Your task to perform on an android device: When is my next meeting? Image 0: 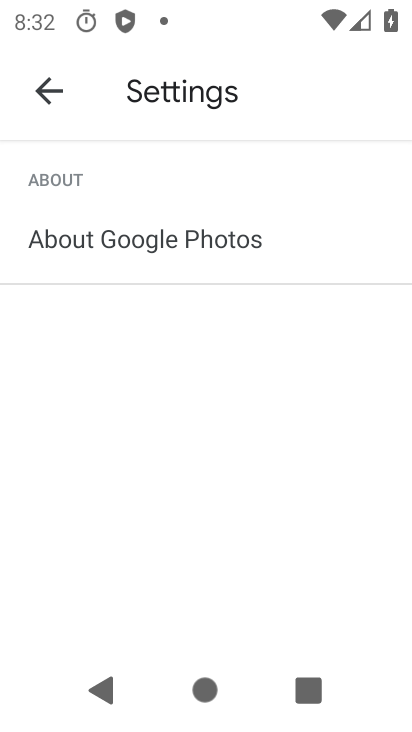
Step 0: press home button
Your task to perform on an android device: When is my next meeting? Image 1: 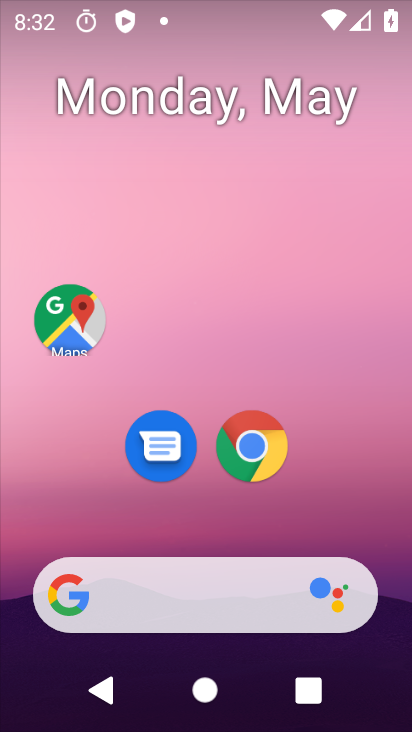
Step 1: drag from (345, 536) to (317, 11)
Your task to perform on an android device: When is my next meeting? Image 2: 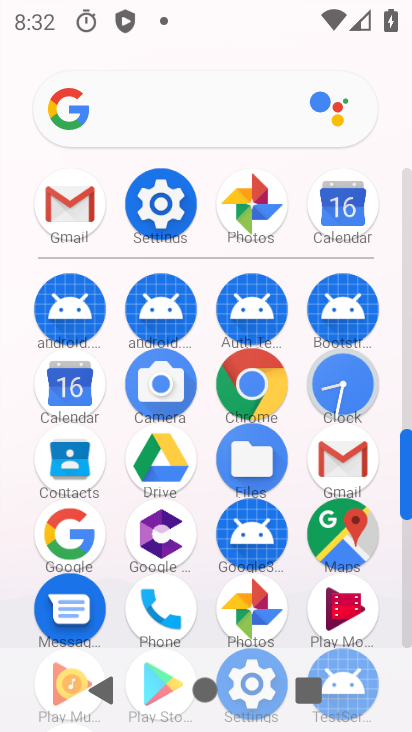
Step 2: click (325, 192)
Your task to perform on an android device: When is my next meeting? Image 3: 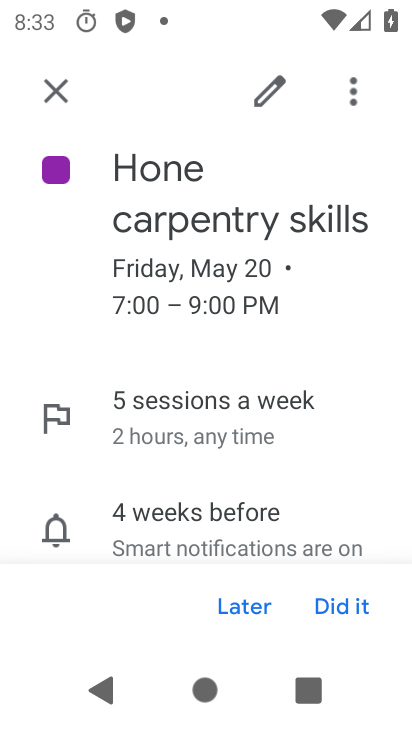
Step 3: click (41, 101)
Your task to perform on an android device: When is my next meeting? Image 4: 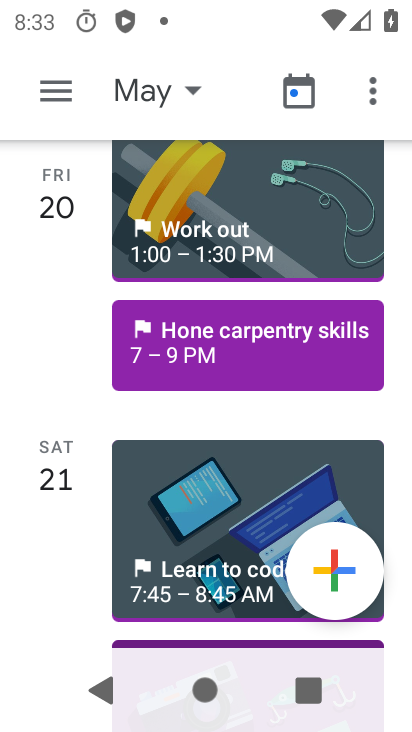
Step 4: click (217, 327)
Your task to perform on an android device: When is my next meeting? Image 5: 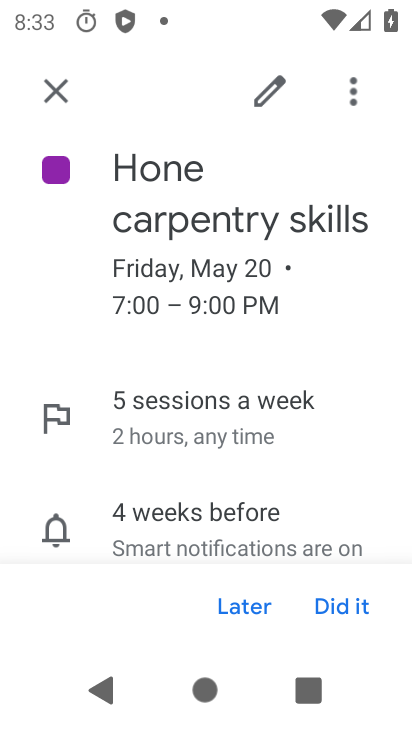
Step 5: task complete